Your task to perform on an android device: check android version Image 0: 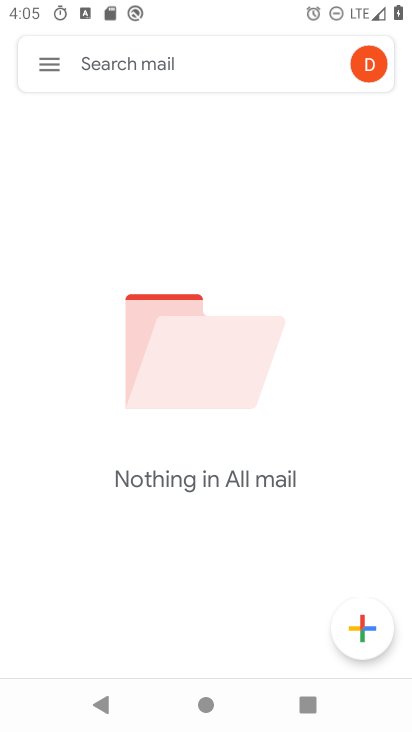
Step 0: press home button
Your task to perform on an android device: check android version Image 1: 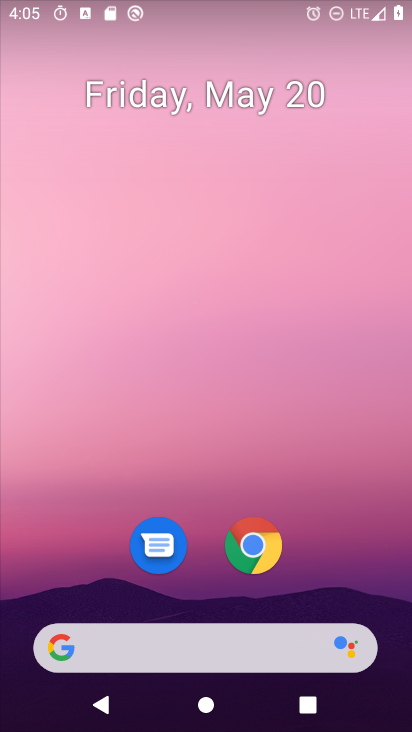
Step 1: drag from (203, 590) to (243, 141)
Your task to perform on an android device: check android version Image 2: 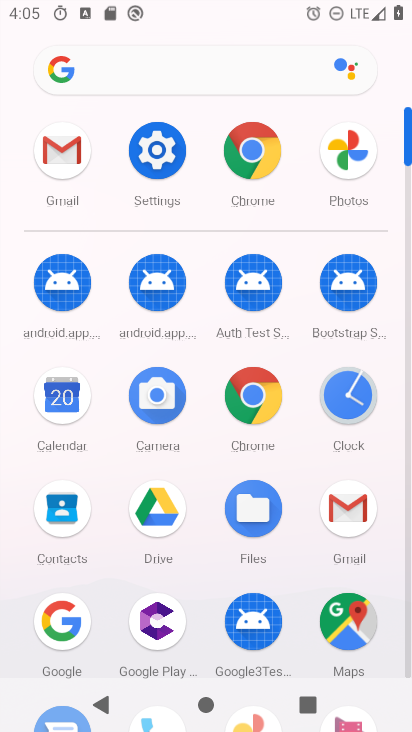
Step 2: click (165, 146)
Your task to perform on an android device: check android version Image 3: 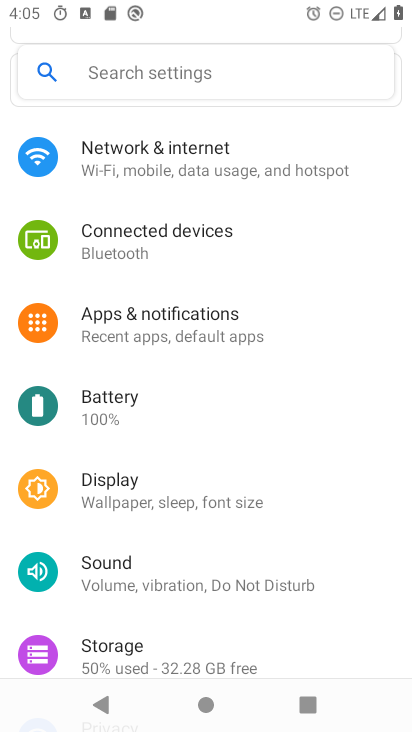
Step 3: drag from (234, 652) to (224, 136)
Your task to perform on an android device: check android version Image 4: 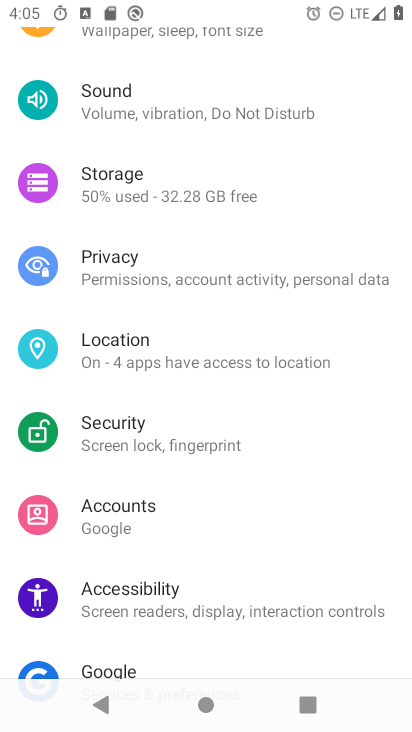
Step 4: drag from (159, 662) to (138, 222)
Your task to perform on an android device: check android version Image 5: 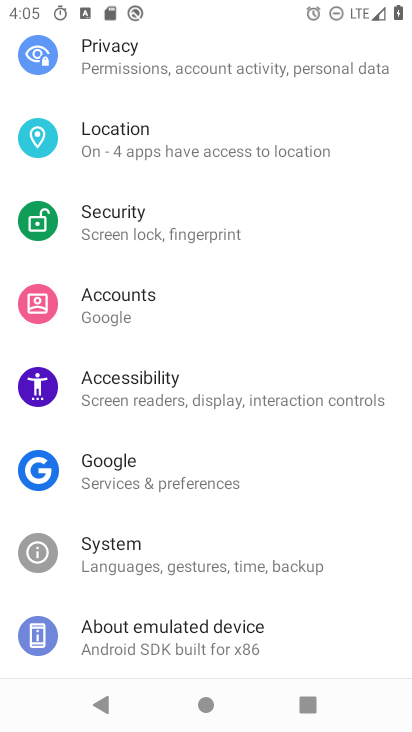
Step 5: click (192, 649)
Your task to perform on an android device: check android version Image 6: 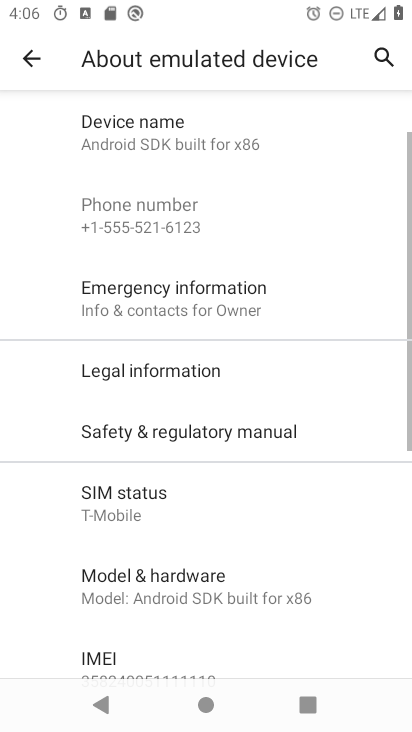
Step 6: drag from (220, 682) to (207, 151)
Your task to perform on an android device: check android version Image 7: 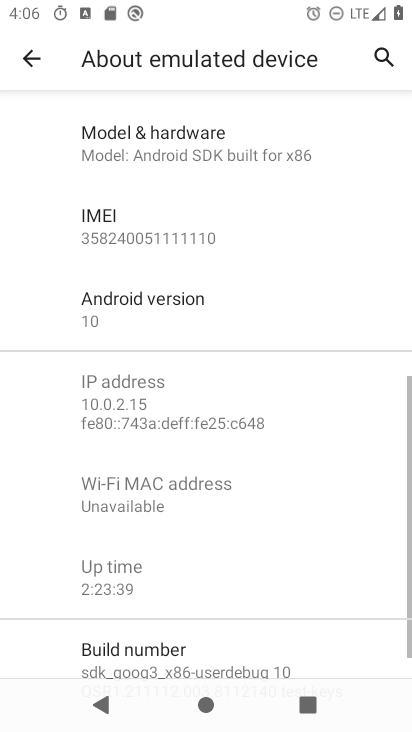
Step 7: click (179, 299)
Your task to perform on an android device: check android version Image 8: 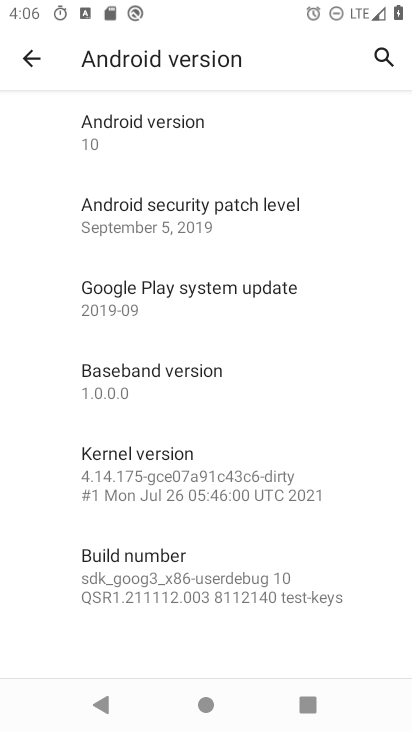
Step 8: task complete